Your task to perform on an android device: Check the weather Image 0: 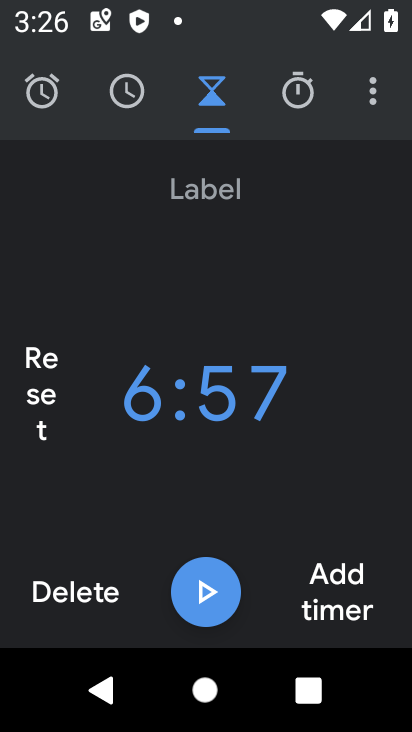
Step 0: press home button
Your task to perform on an android device: Check the weather Image 1: 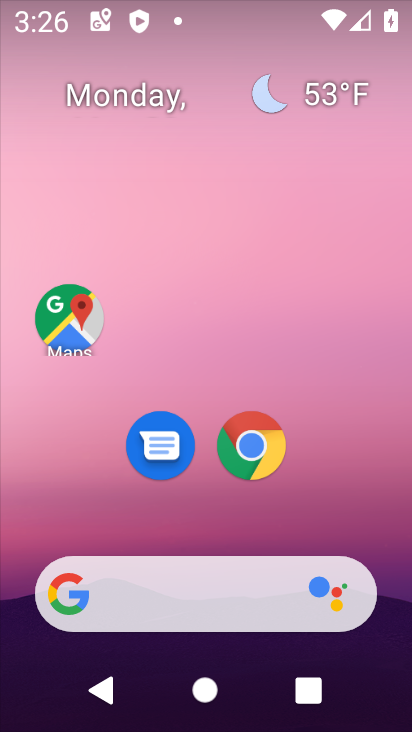
Step 1: click (202, 603)
Your task to perform on an android device: Check the weather Image 2: 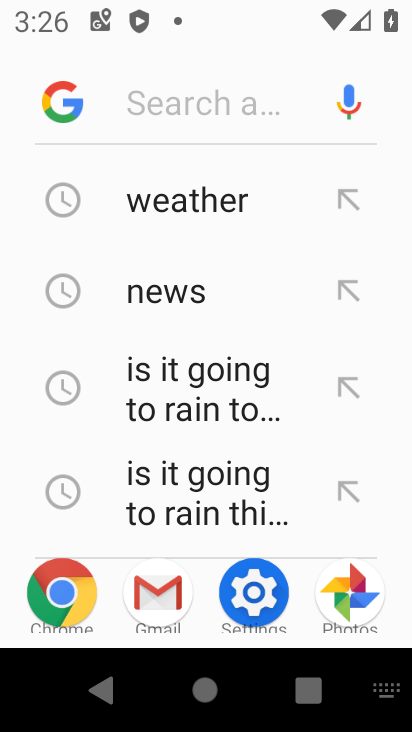
Step 2: click (186, 213)
Your task to perform on an android device: Check the weather Image 3: 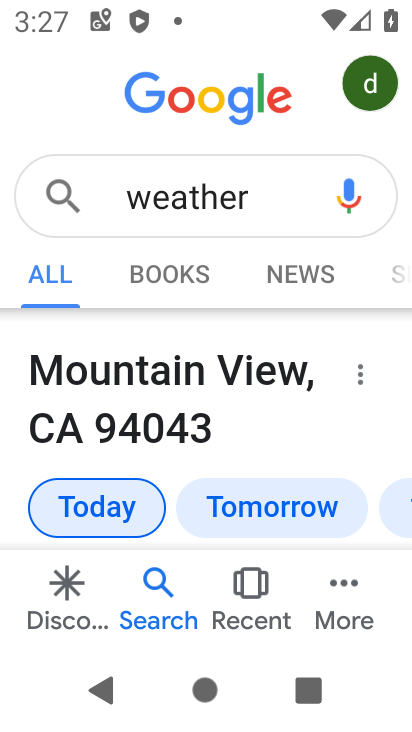
Step 3: task complete